Your task to perform on an android device: Go to network settings Image 0: 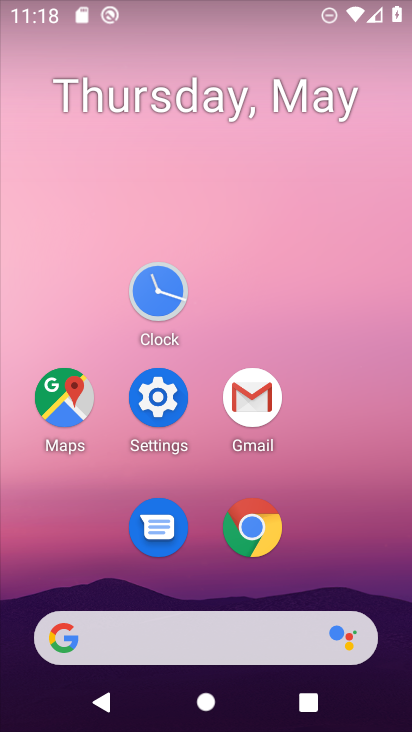
Step 0: click (151, 431)
Your task to perform on an android device: Go to network settings Image 1: 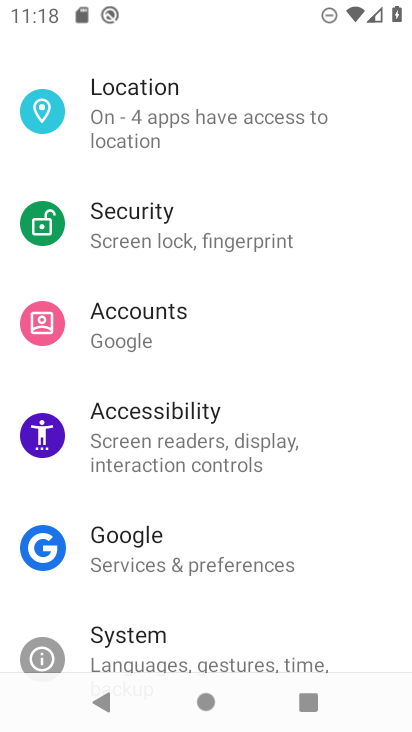
Step 1: drag from (240, 123) to (181, 508)
Your task to perform on an android device: Go to network settings Image 2: 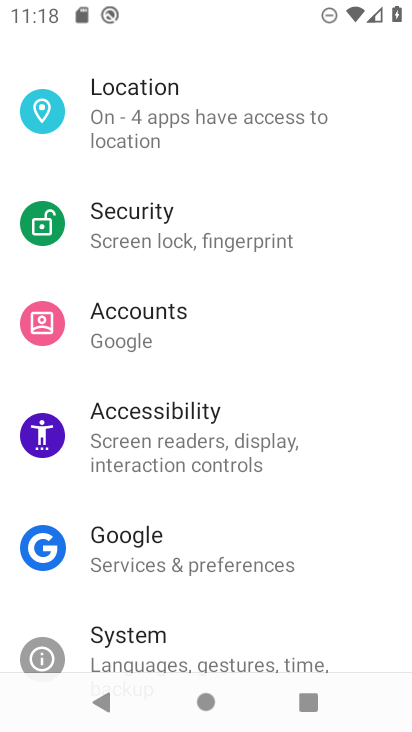
Step 2: drag from (159, 316) to (171, 594)
Your task to perform on an android device: Go to network settings Image 3: 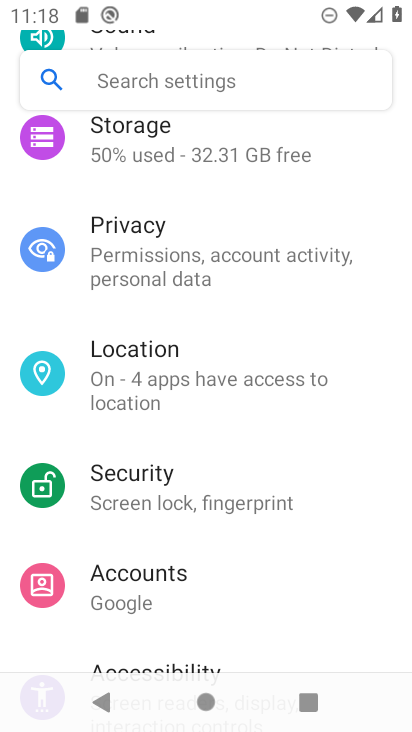
Step 3: drag from (284, 302) to (270, 712)
Your task to perform on an android device: Go to network settings Image 4: 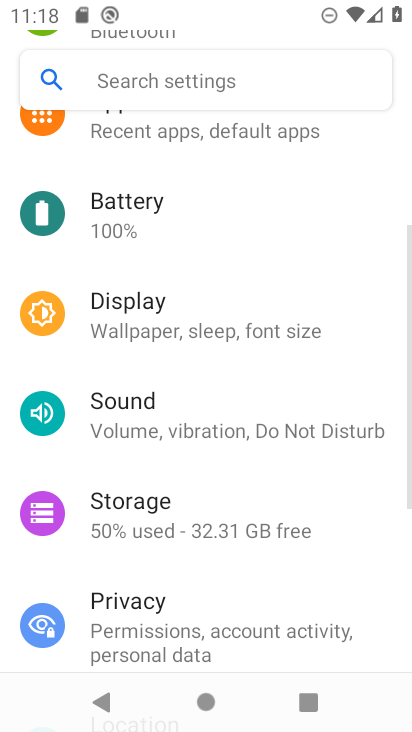
Step 4: drag from (255, 242) to (237, 590)
Your task to perform on an android device: Go to network settings Image 5: 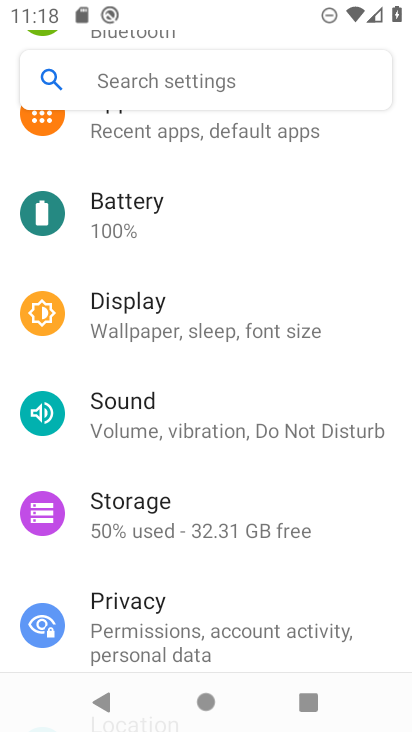
Step 5: drag from (186, 316) to (185, 489)
Your task to perform on an android device: Go to network settings Image 6: 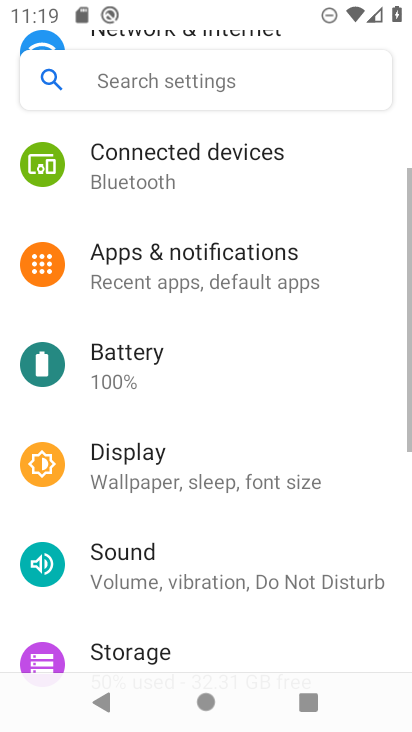
Step 6: drag from (215, 307) to (208, 422)
Your task to perform on an android device: Go to network settings Image 7: 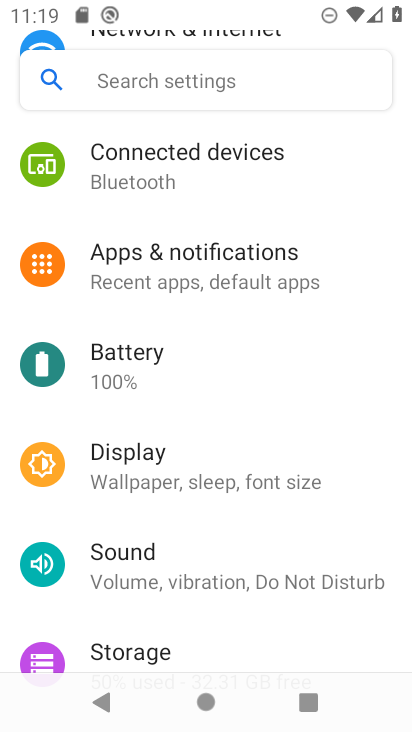
Step 7: drag from (216, 189) to (212, 321)
Your task to perform on an android device: Go to network settings Image 8: 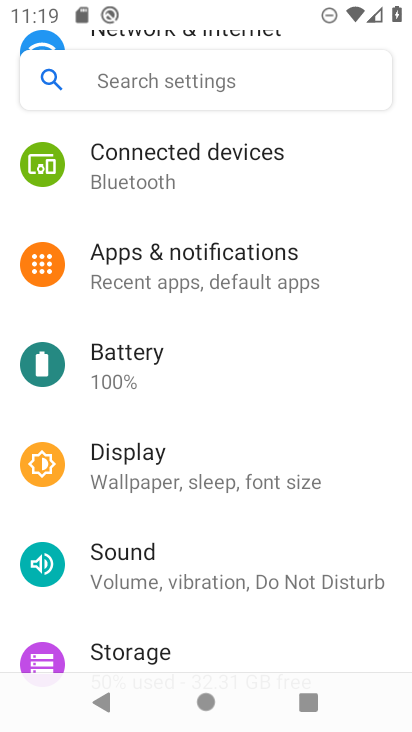
Step 8: drag from (229, 145) to (221, 352)
Your task to perform on an android device: Go to network settings Image 9: 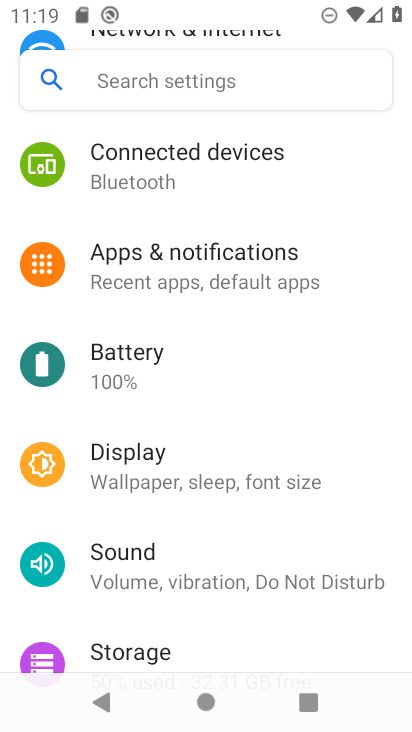
Step 9: drag from (239, 275) to (227, 408)
Your task to perform on an android device: Go to network settings Image 10: 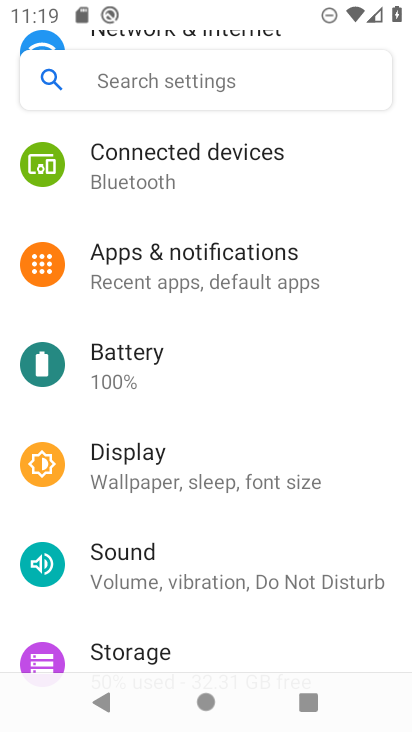
Step 10: drag from (242, 196) to (226, 525)
Your task to perform on an android device: Go to network settings Image 11: 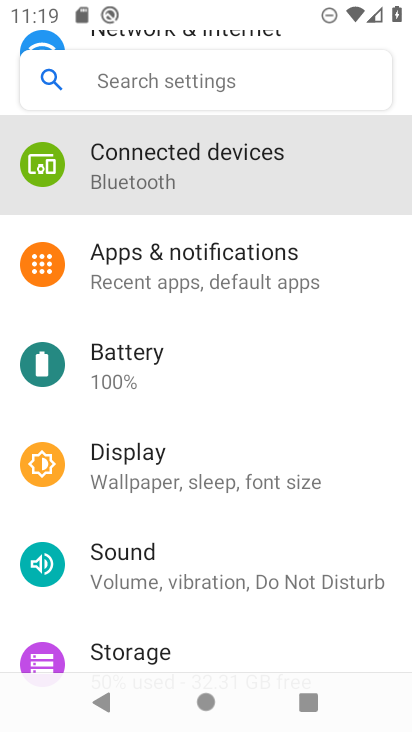
Step 11: click (226, 525)
Your task to perform on an android device: Go to network settings Image 12: 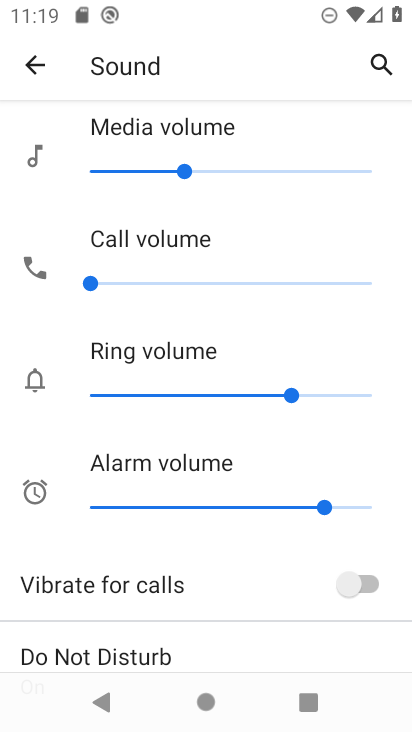
Step 12: click (40, 59)
Your task to perform on an android device: Go to network settings Image 13: 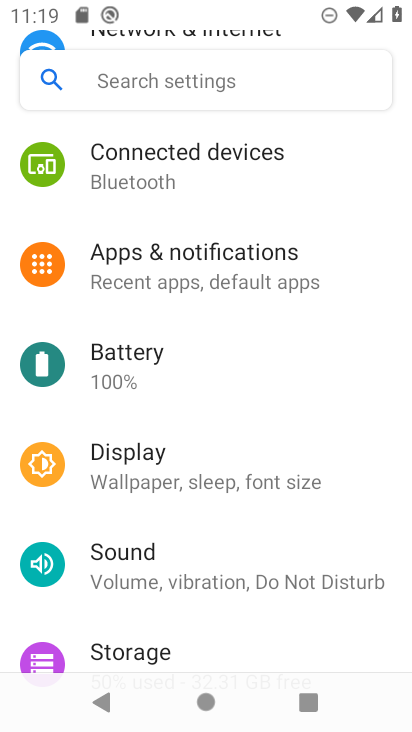
Step 13: drag from (177, 175) to (190, 439)
Your task to perform on an android device: Go to network settings Image 14: 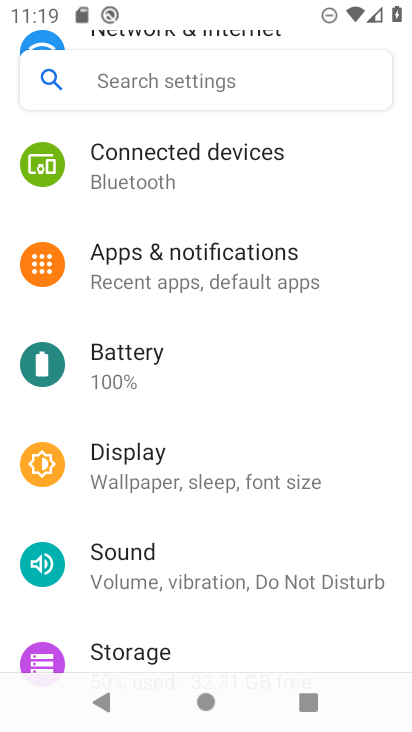
Step 14: drag from (279, 369) to (379, 400)
Your task to perform on an android device: Go to network settings Image 15: 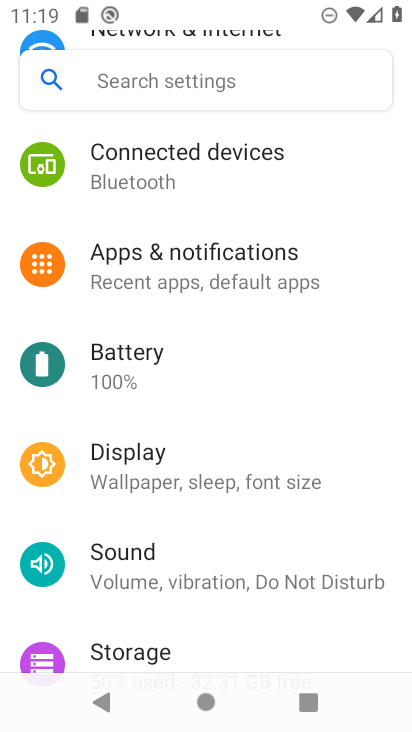
Step 15: press home button
Your task to perform on an android device: Go to network settings Image 16: 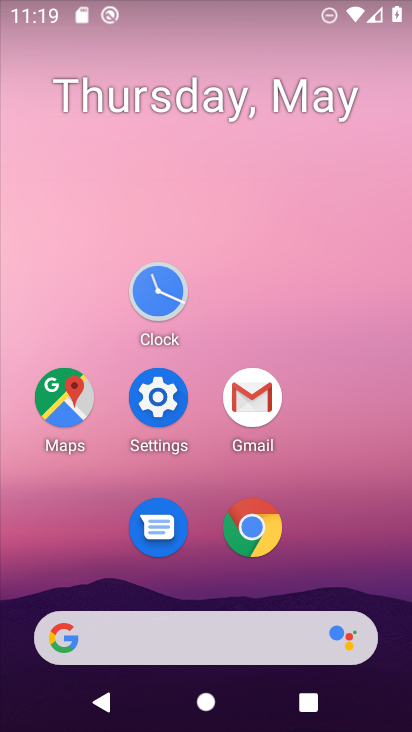
Step 16: click (156, 407)
Your task to perform on an android device: Go to network settings Image 17: 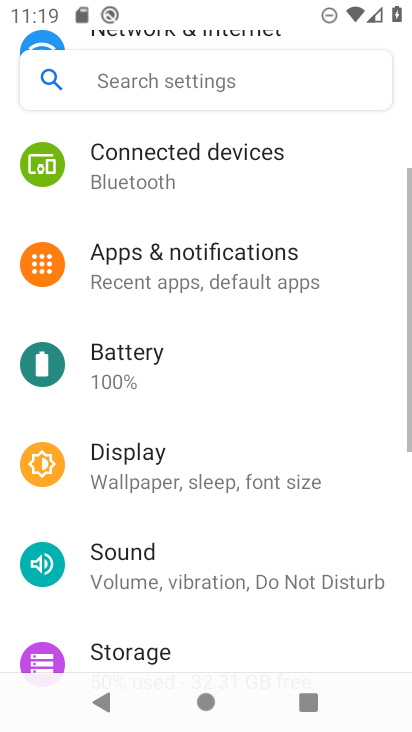
Step 17: drag from (291, 246) to (270, 593)
Your task to perform on an android device: Go to network settings Image 18: 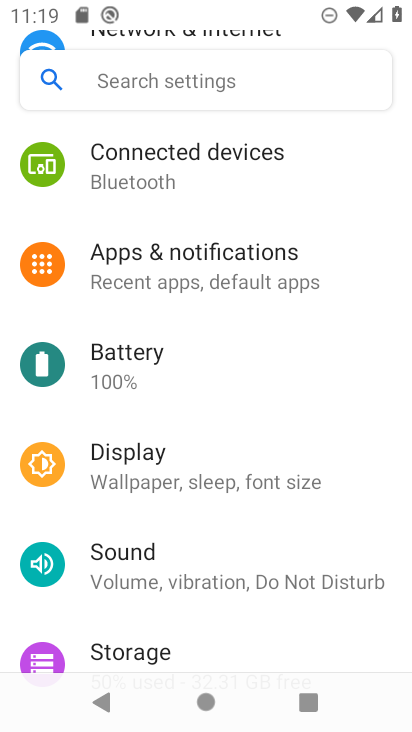
Step 18: drag from (221, 276) to (226, 393)
Your task to perform on an android device: Go to network settings Image 19: 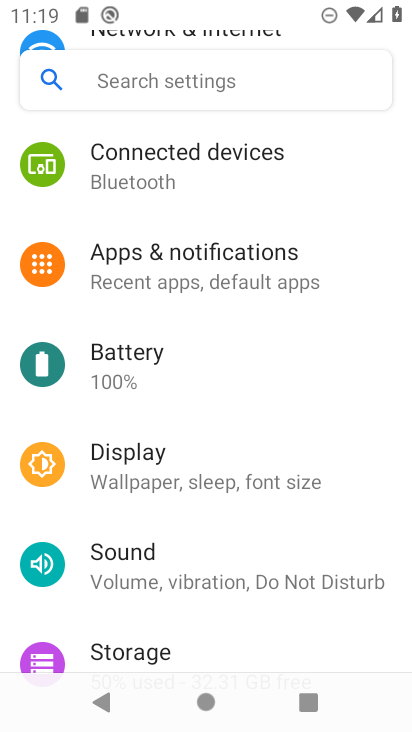
Step 19: click (102, 41)
Your task to perform on an android device: Go to network settings Image 20: 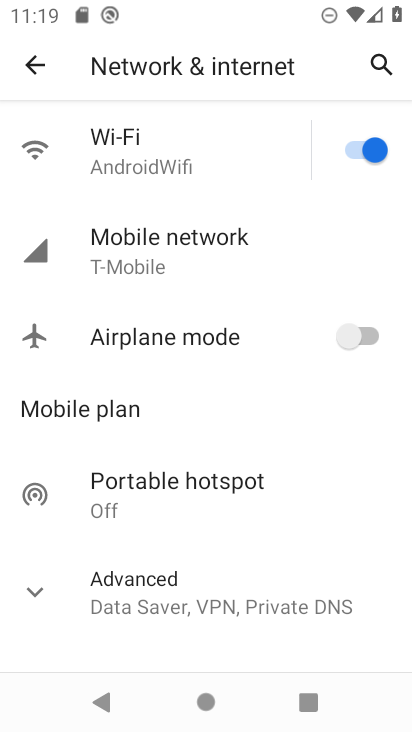
Step 20: task complete